Your task to perform on an android device: Open Wikipedia Image 0: 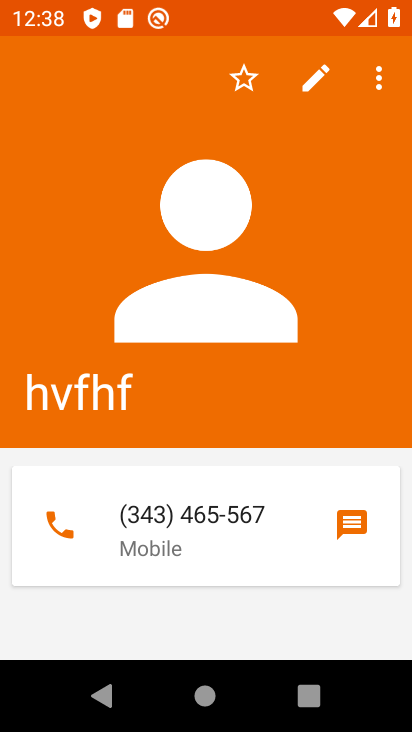
Step 0: press home button
Your task to perform on an android device: Open Wikipedia Image 1: 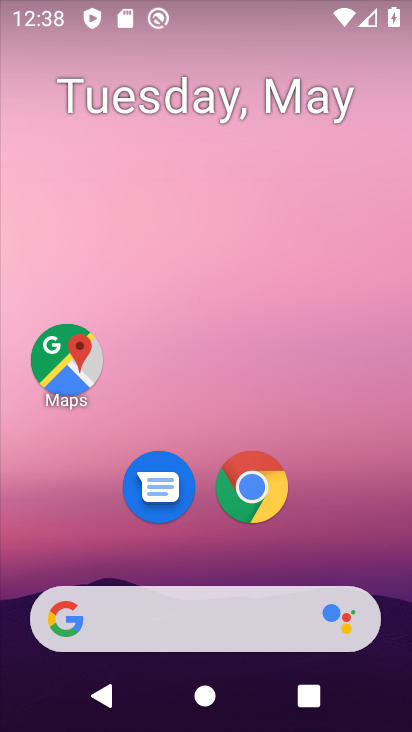
Step 1: click (244, 482)
Your task to perform on an android device: Open Wikipedia Image 2: 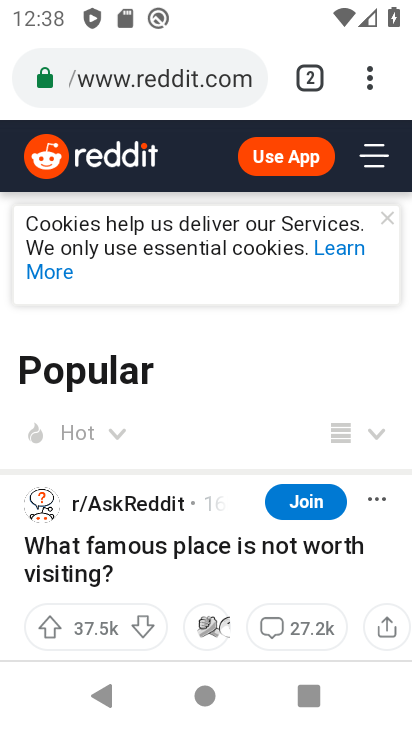
Step 2: click (314, 76)
Your task to perform on an android device: Open Wikipedia Image 3: 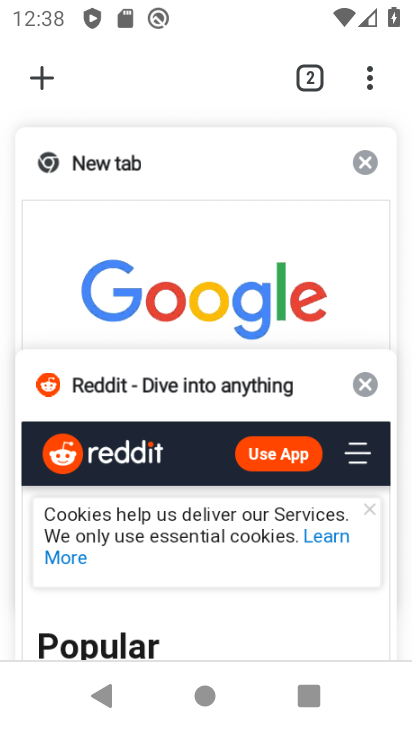
Step 3: click (38, 83)
Your task to perform on an android device: Open Wikipedia Image 4: 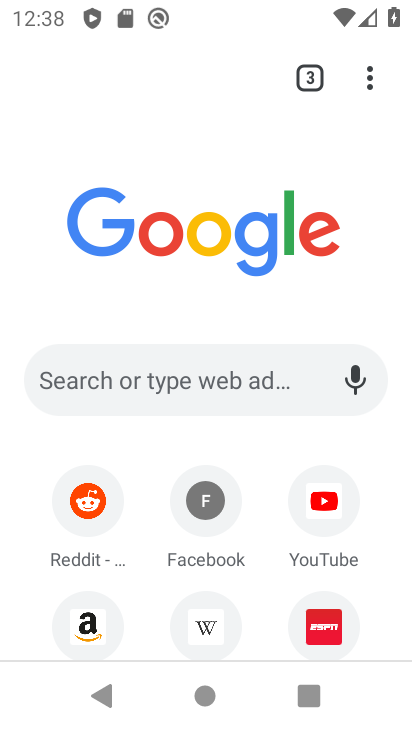
Step 4: click (221, 614)
Your task to perform on an android device: Open Wikipedia Image 5: 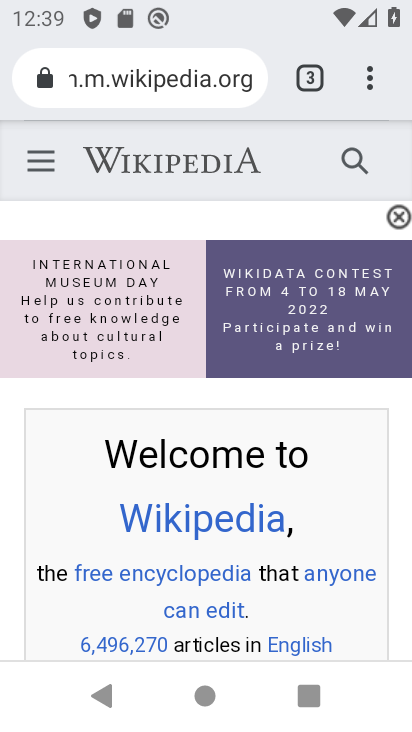
Step 5: task complete